Your task to perform on an android device: Open the stopwatch Image 0: 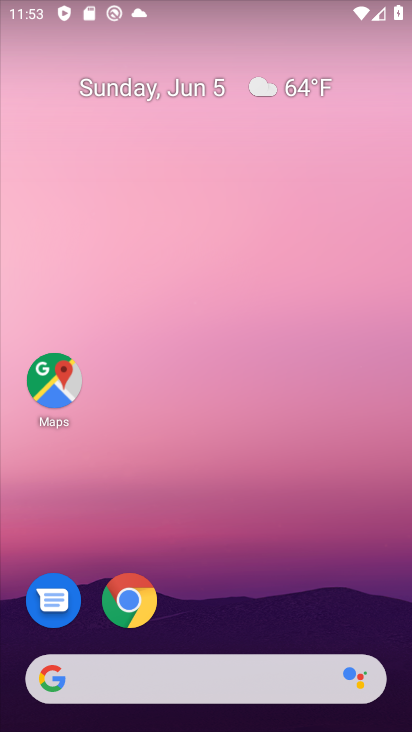
Step 0: drag from (246, 702) to (175, 1)
Your task to perform on an android device: Open the stopwatch Image 1: 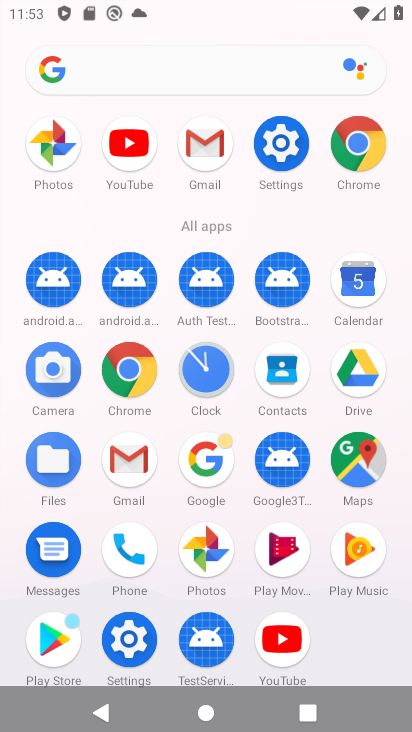
Step 1: click (201, 356)
Your task to perform on an android device: Open the stopwatch Image 2: 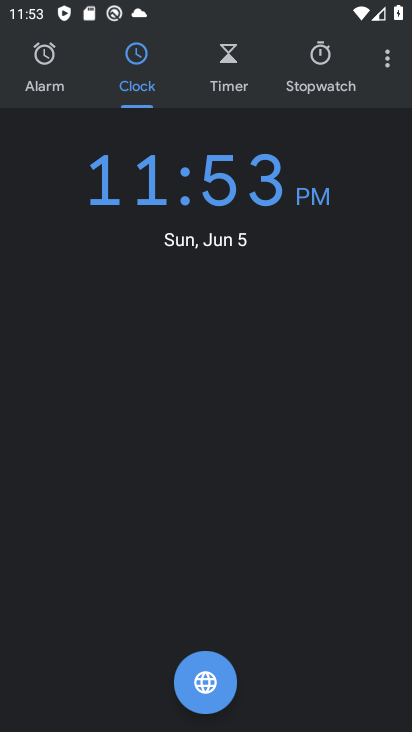
Step 2: click (311, 57)
Your task to perform on an android device: Open the stopwatch Image 3: 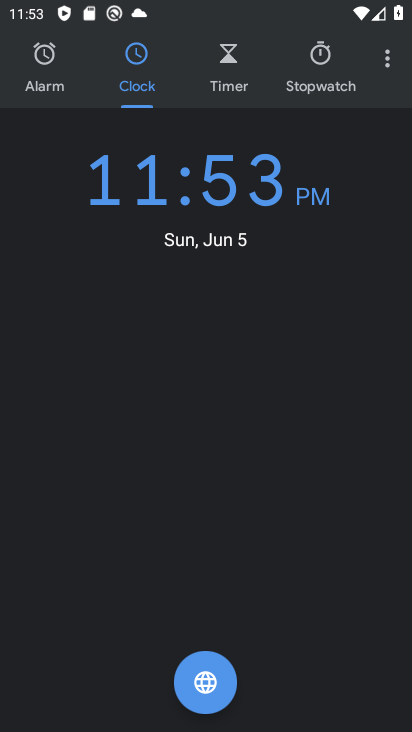
Step 3: click (320, 47)
Your task to perform on an android device: Open the stopwatch Image 4: 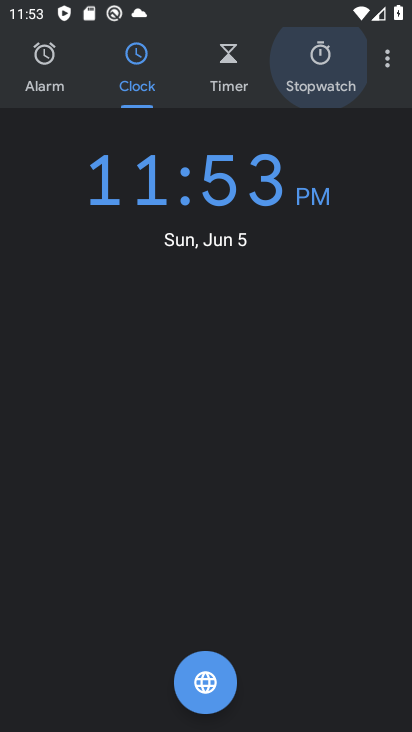
Step 4: click (320, 47)
Your task to perform on an android device: Open the stopwatch Image 5: 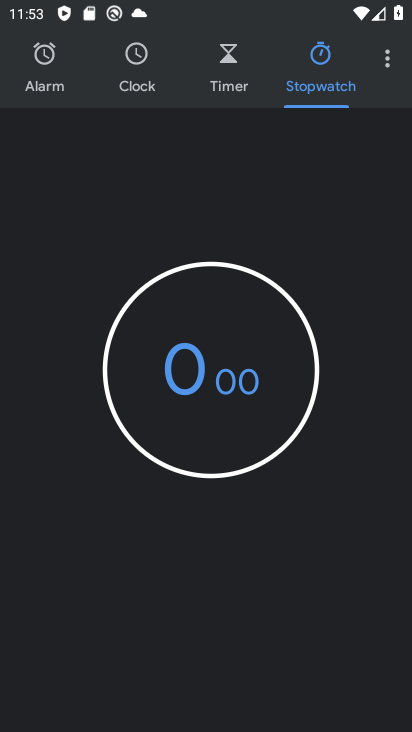
Step 5: click (320, 47)
Your task to perform on an android device: Open the stopwatch Image 6: 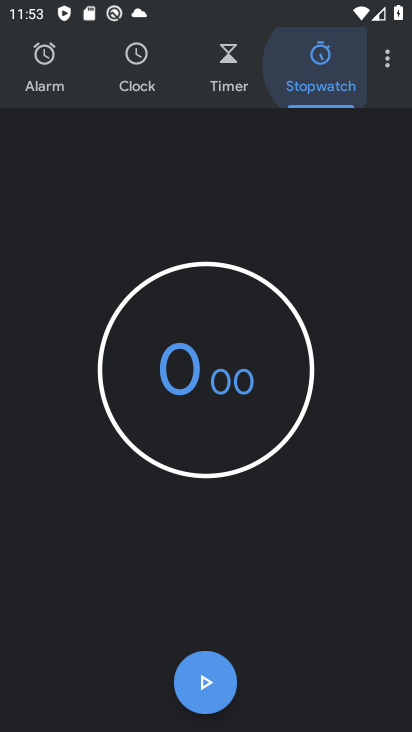
Step 6: click (316, 48)
Your task to perform on an android device: Open the stopwatch Image 7: 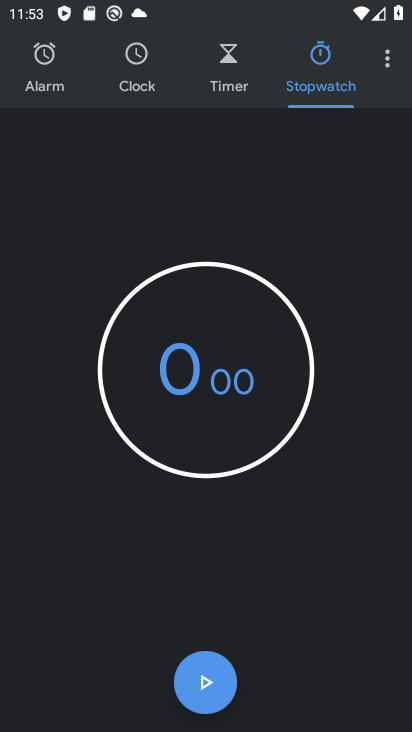
Step 7: click (211, 690)
Your task to perform on an android device: Open the stopwatch Image 8: 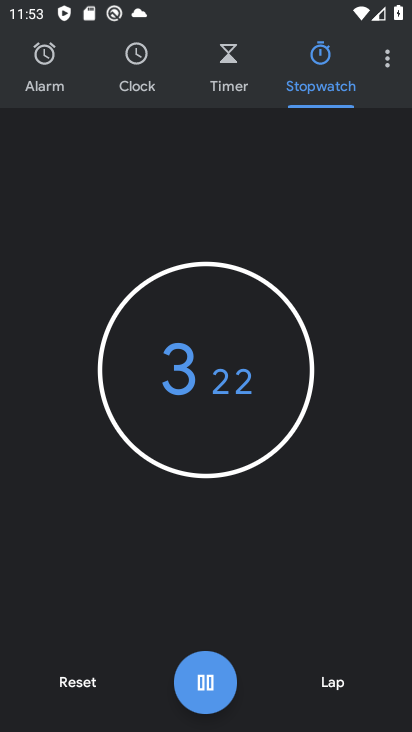
Step 8: click (202, 671)
Your task to perform on an android device: Open the stopwatch Image 9: 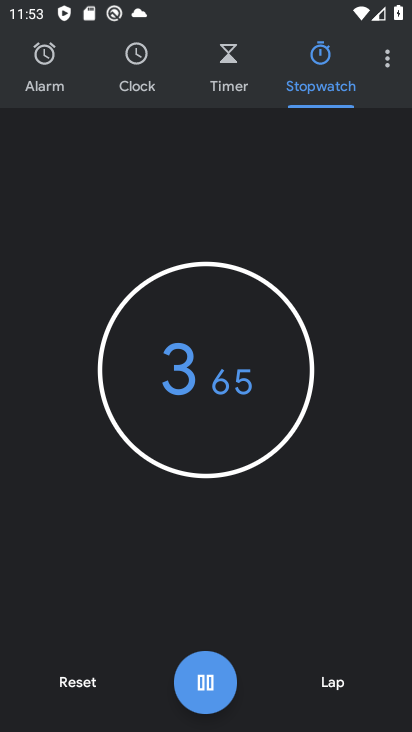
Step 9: click (202, 671)
Your task to perform on an android device: Open the stopwatch Image 10: 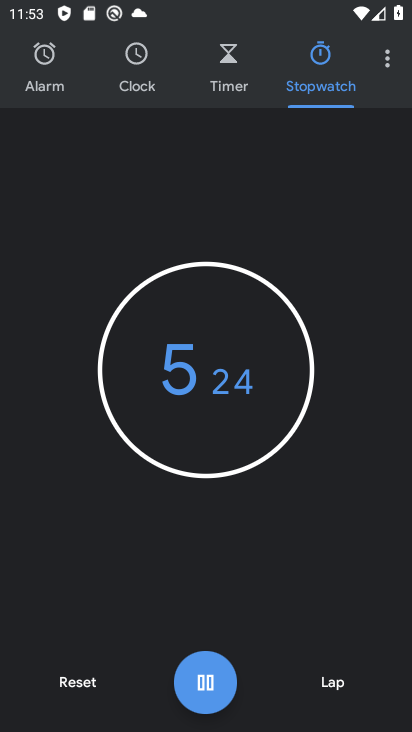
Step 10: click (202, 684)
Your task to perform on an android device: Open the stopwatch Image 11: 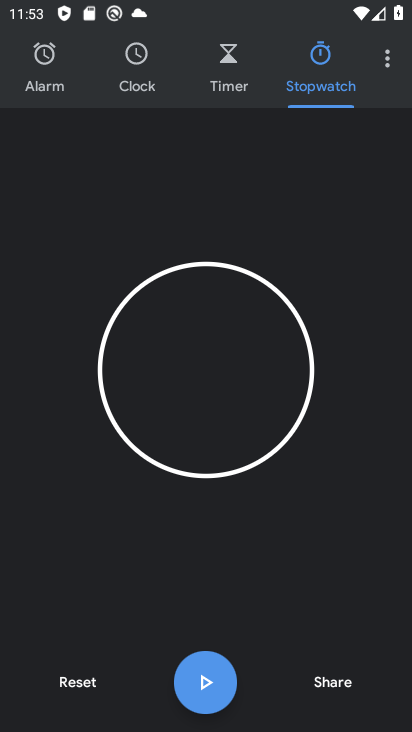
Step 11: task complete